Your task to perform on an android device: uninstall "Lyft - Rideshare, Bikes, Scooters & Transit" Image 0: 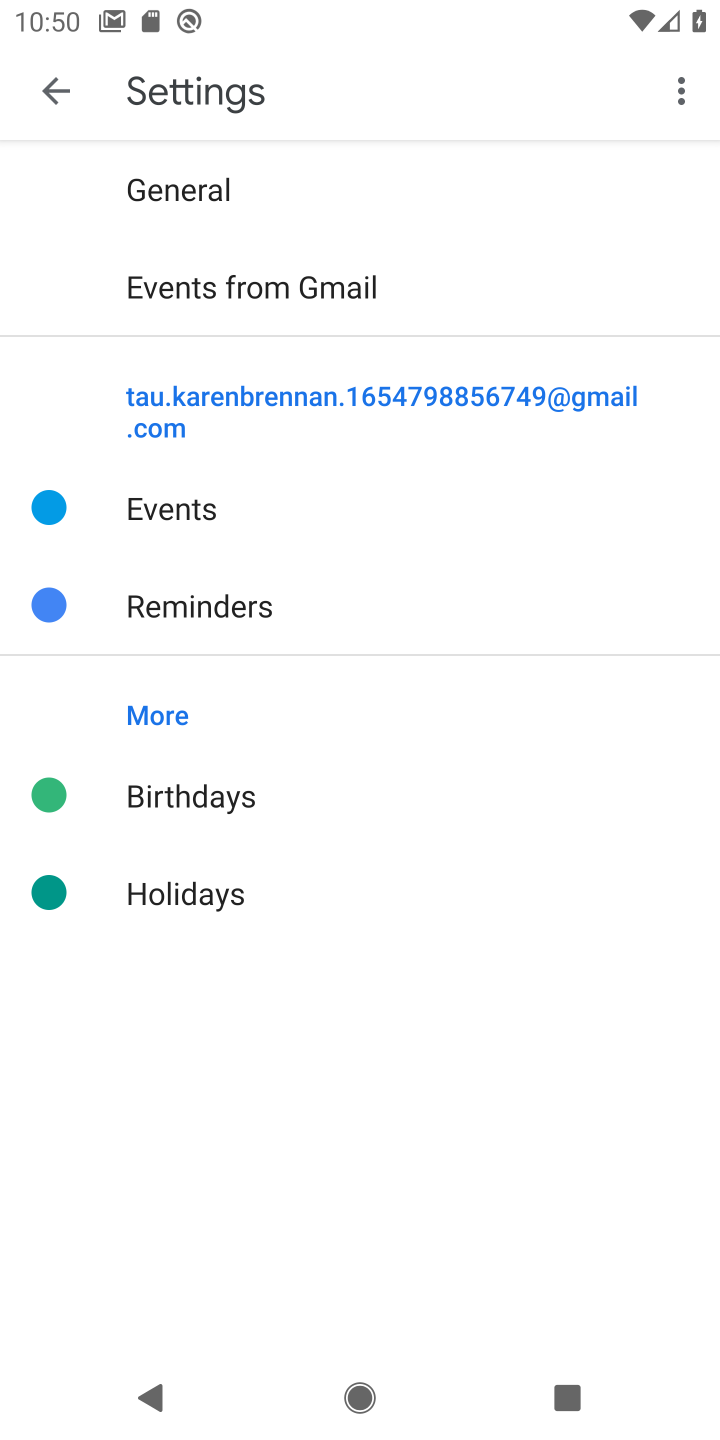
Step 0: press home button
Your task to perform on an android device: uninstall "Lyft - Rideshare, Bikes, Scooters & Transit" Image 1: 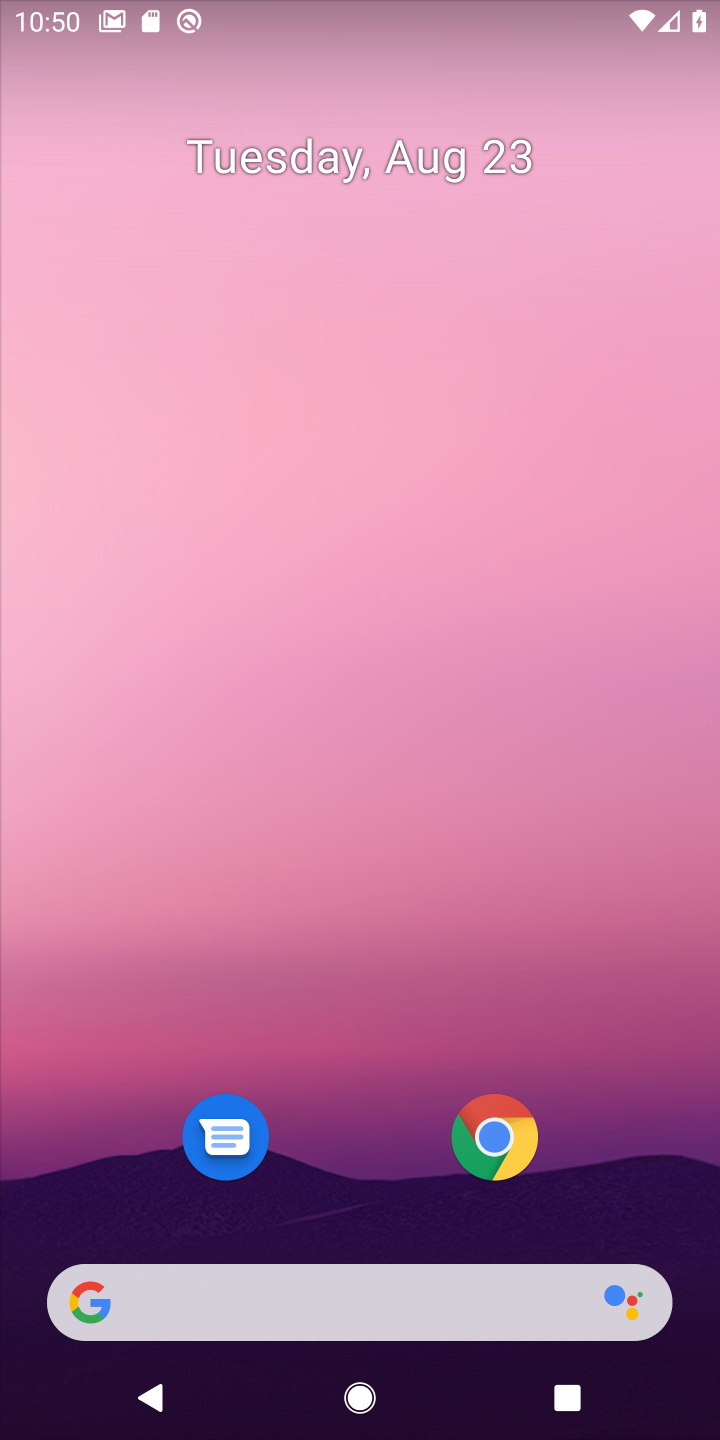
Step 1: drag from (321, 686) to (451, 9)
Your task to perform on an android device: uninstall "Lyft - Rideshare, Bikes, Scooters & Transit" Image 2: 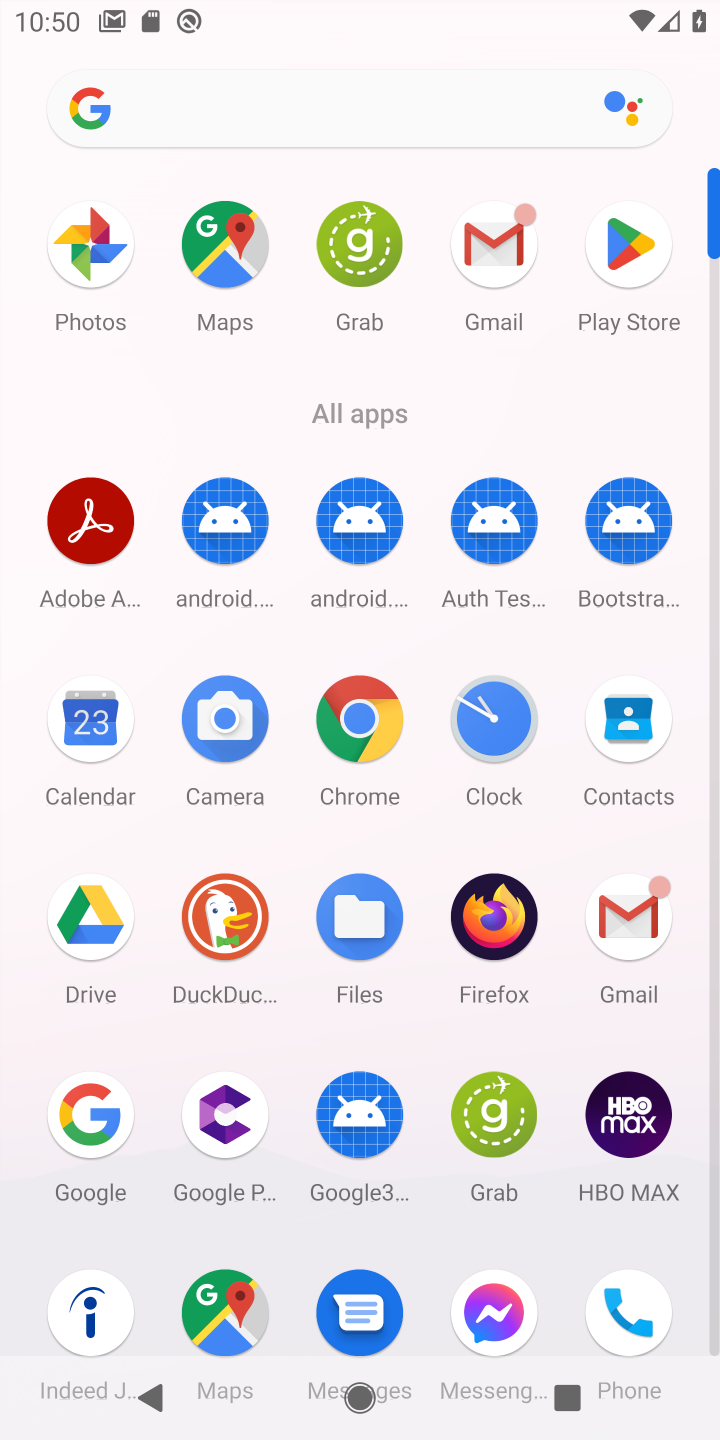
Step 2: click (627, 281)
Your task to perform on an android device: uninstall "Lyft - Rideshare, Bikes, Scooters & Transit" Image 3: 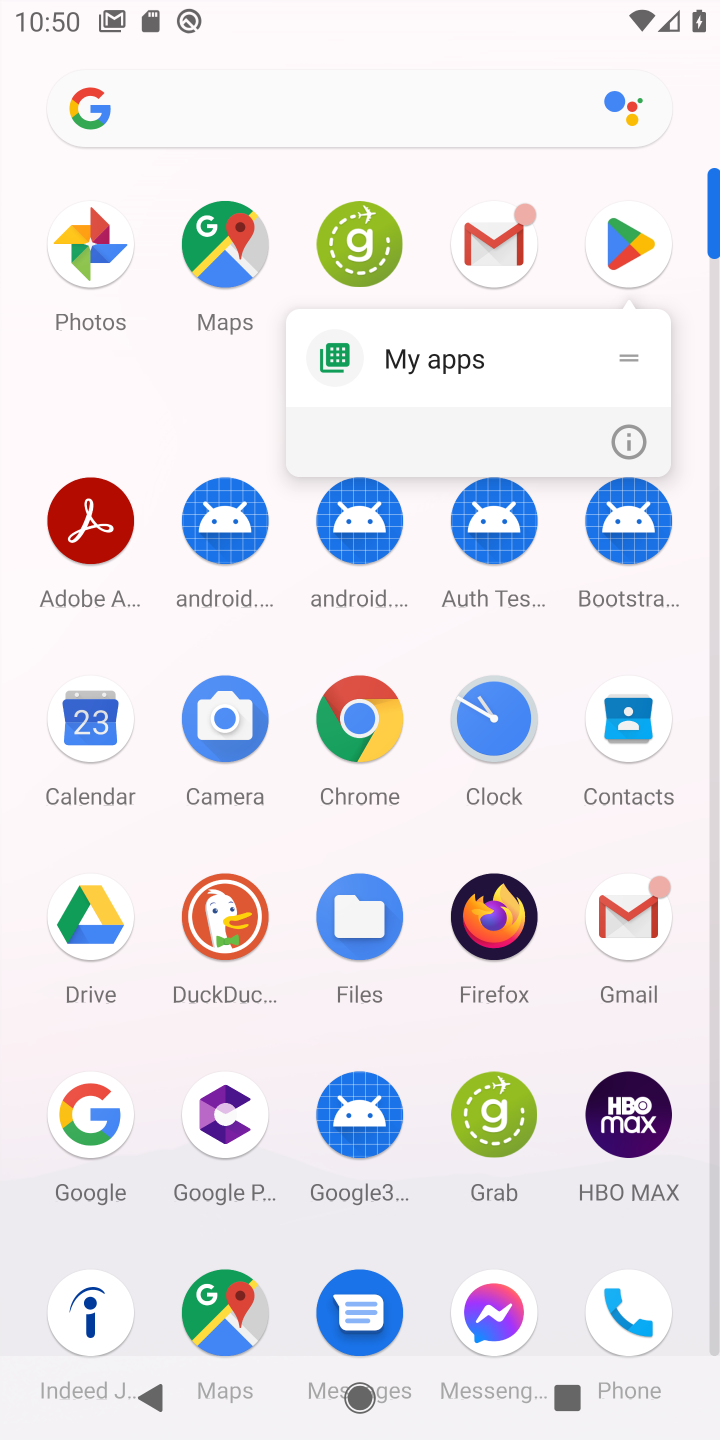
Step 3: click (650, 237)
Your task to perform on an android device: uninstall "Lyft - Rideshare, Bikes, Scooters & Transit" Image 4: 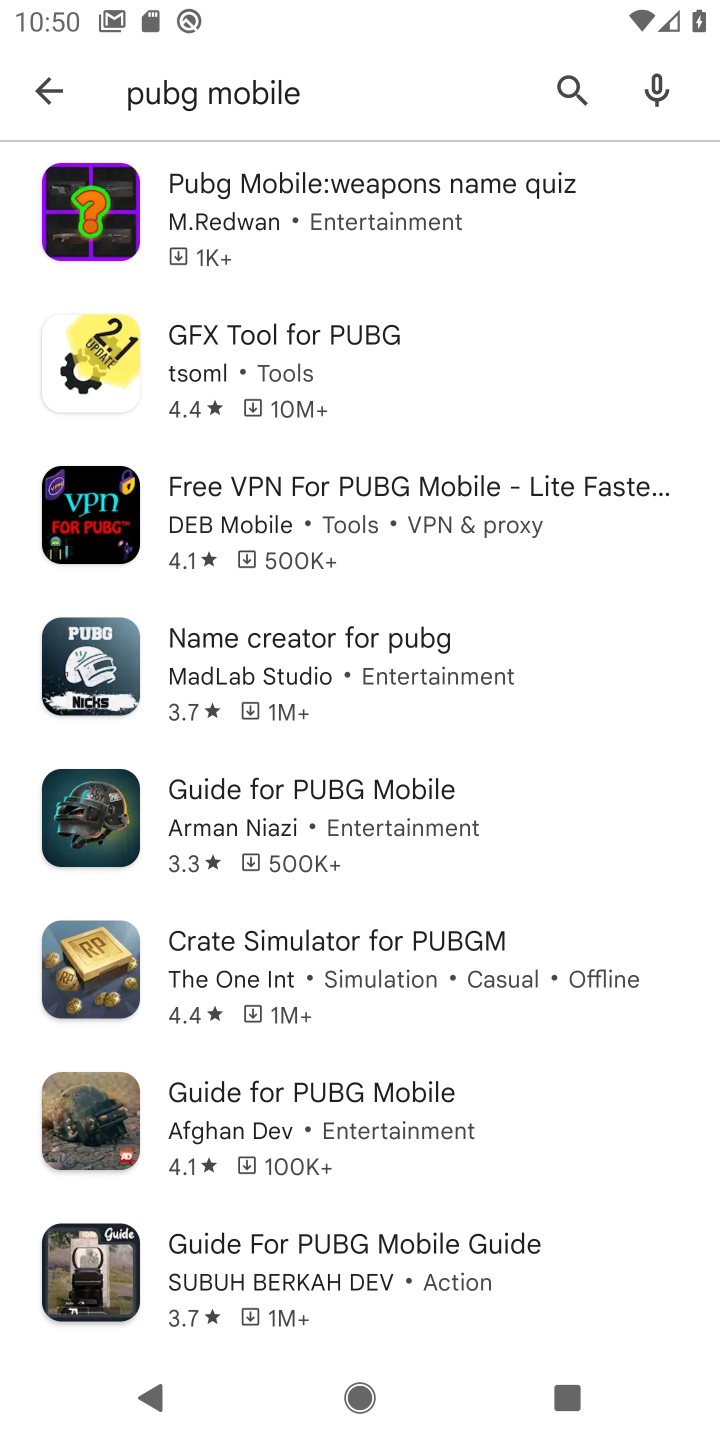
Step 4: click (335, 91)
Your task to perform on an android device: uninstall "Lyft - Rideshare, Bikes, Scooters & Transit" Image 5: 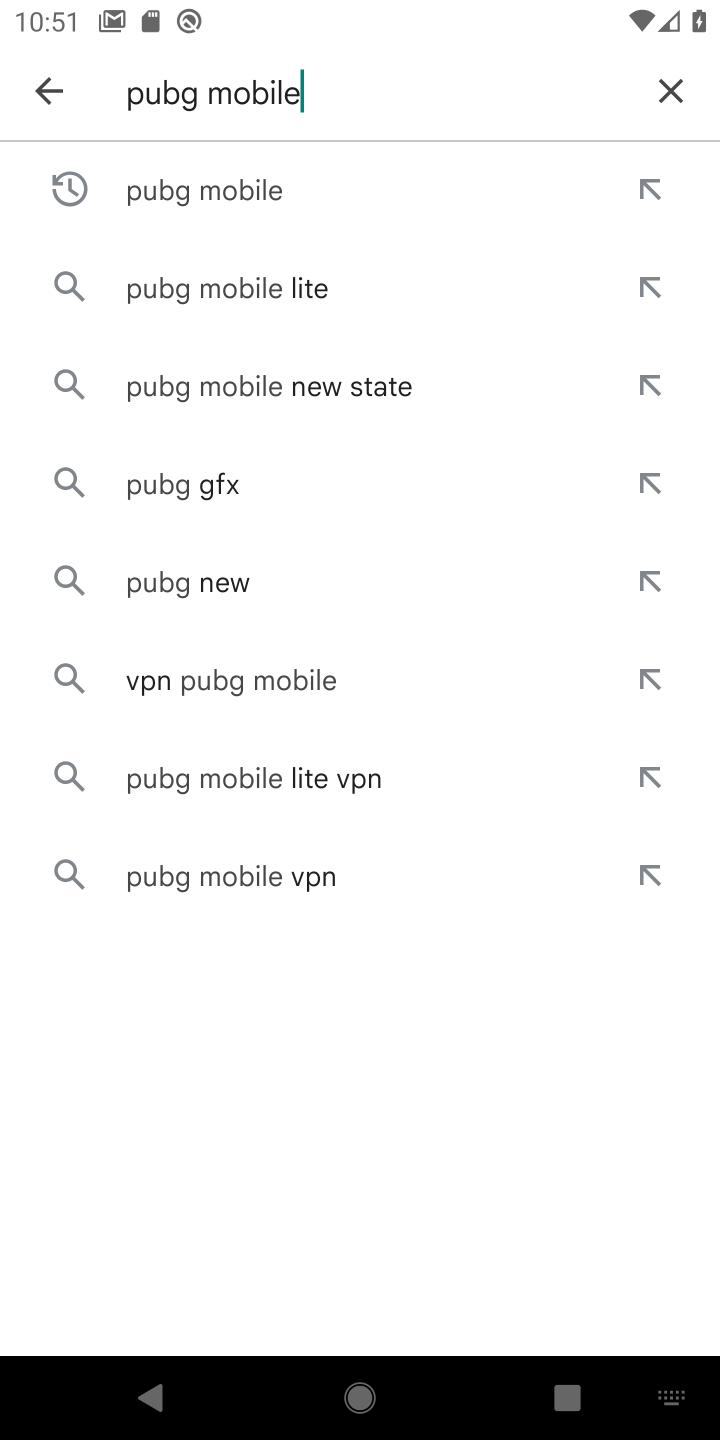
Step 5: click (679, 80)
Your task to perform on an android device: uninstall "Lyft - Rideshare, Bikes, Scooters & Transit" Image 6: 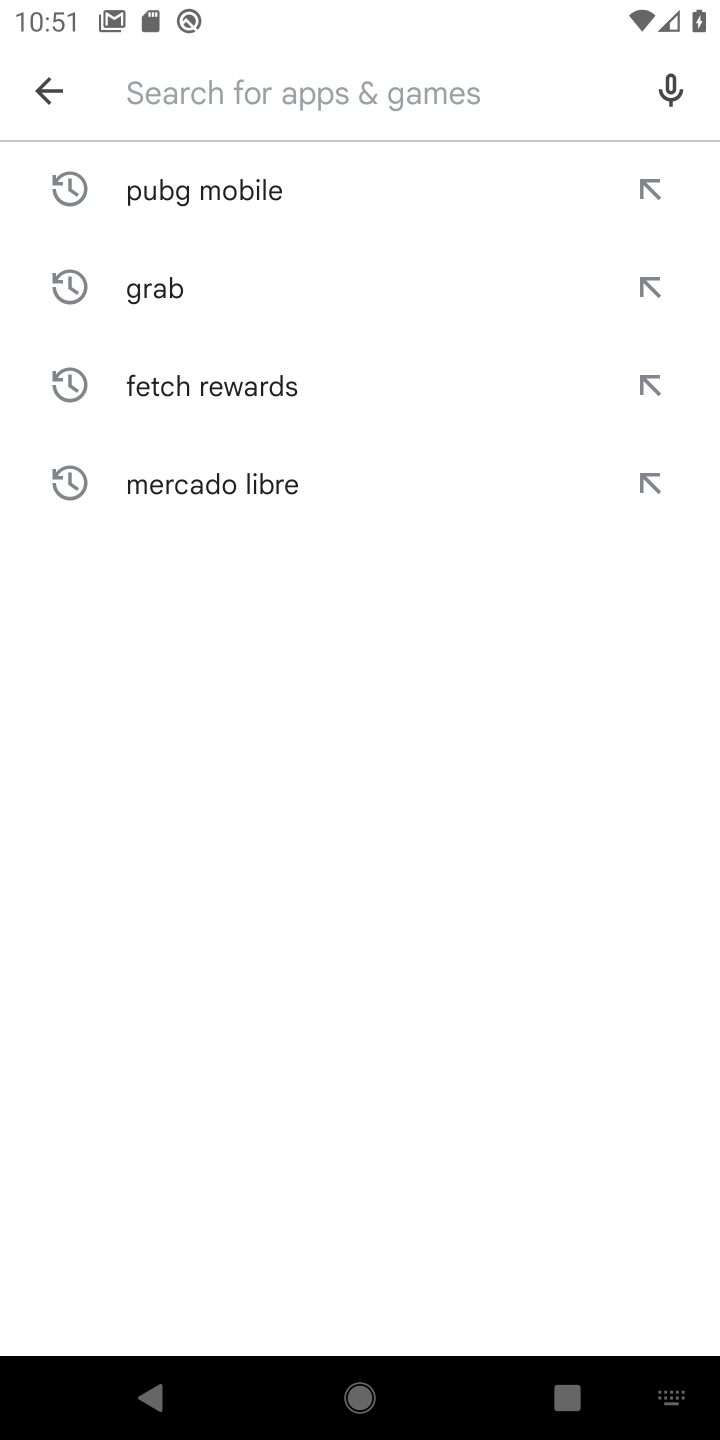
Step 6: type "lyft rideshare"
Your task to perform on an android device: uninstall "Lyft - Rideshare, Bikes, Scooters & Transit" Image 7: 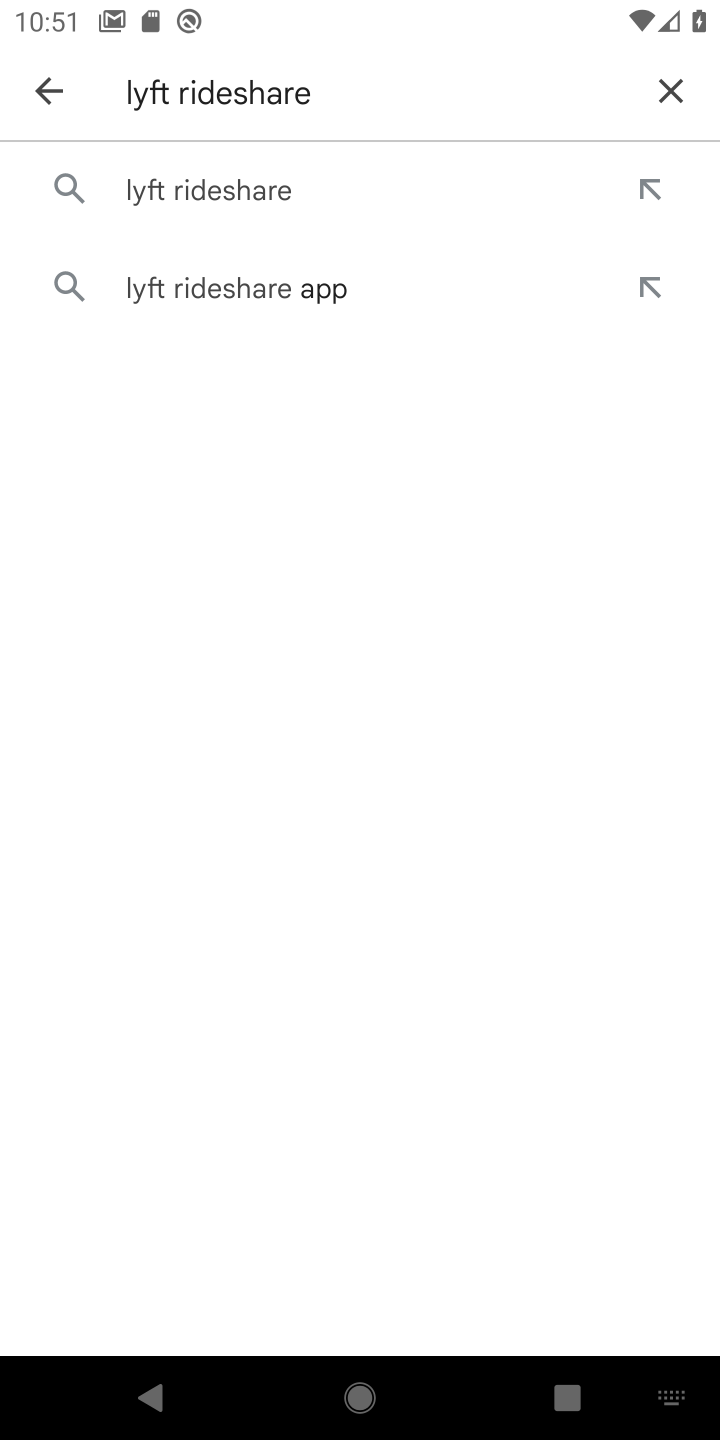
Step 7: click (259, 187)
Your task to perform on an android device: uninstall "Lyft - Rideshare, Bikes, Scooters & Transit" Image 8: 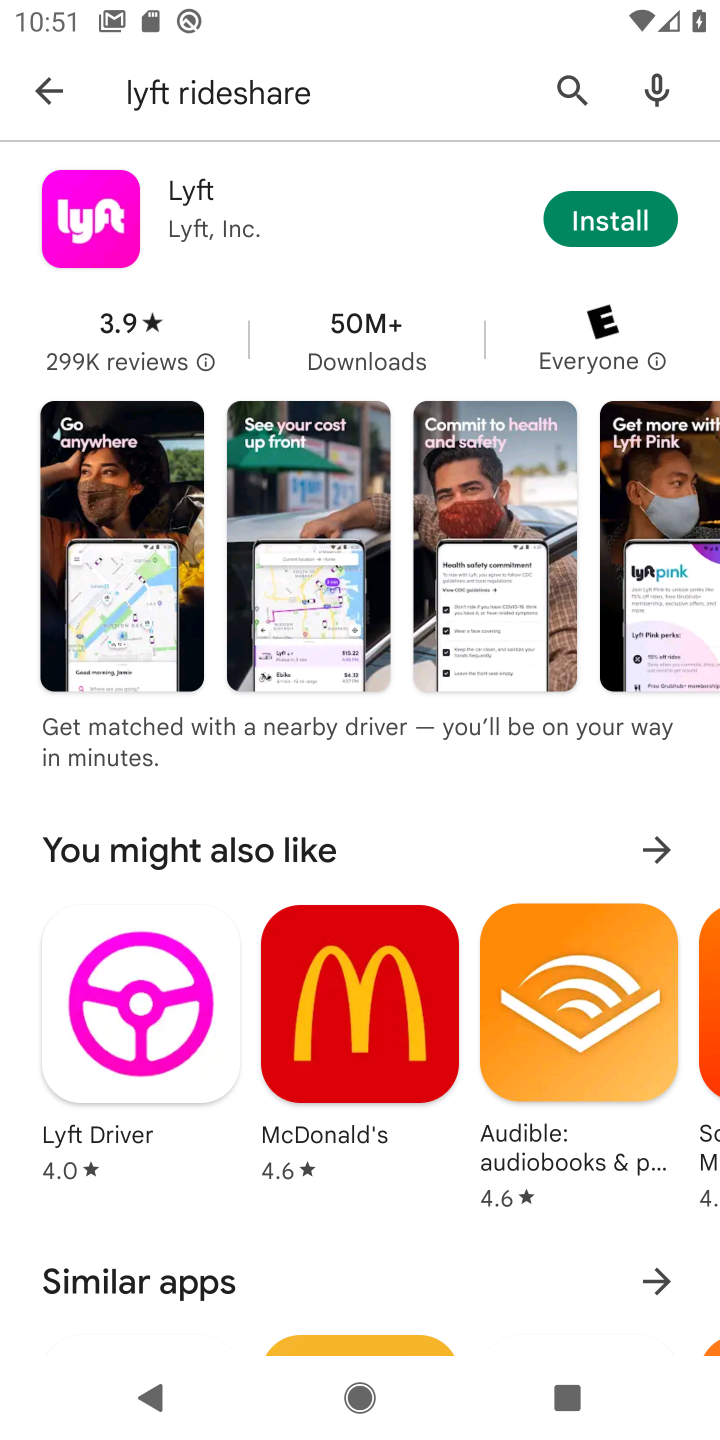
Step 8: click (631, 230)
Your task to perform on an android device: uninstall "Lyft - Rideshare, Bikes, Scooters & Transit" Image 9: 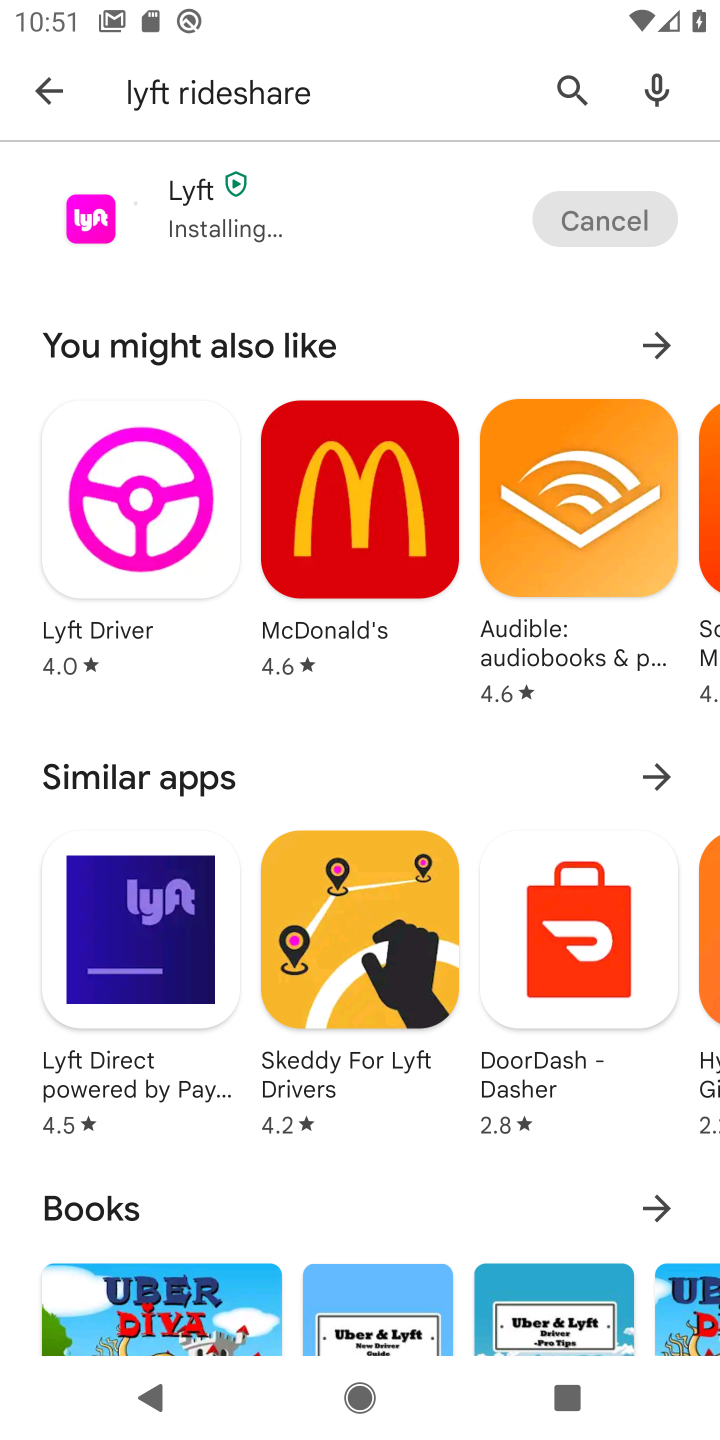
Step 9: click (630, 234)
Your task to perform on an android device: uninstall "Lyft - Rideshare, Bikes, Scooters & Transit" Image 10: 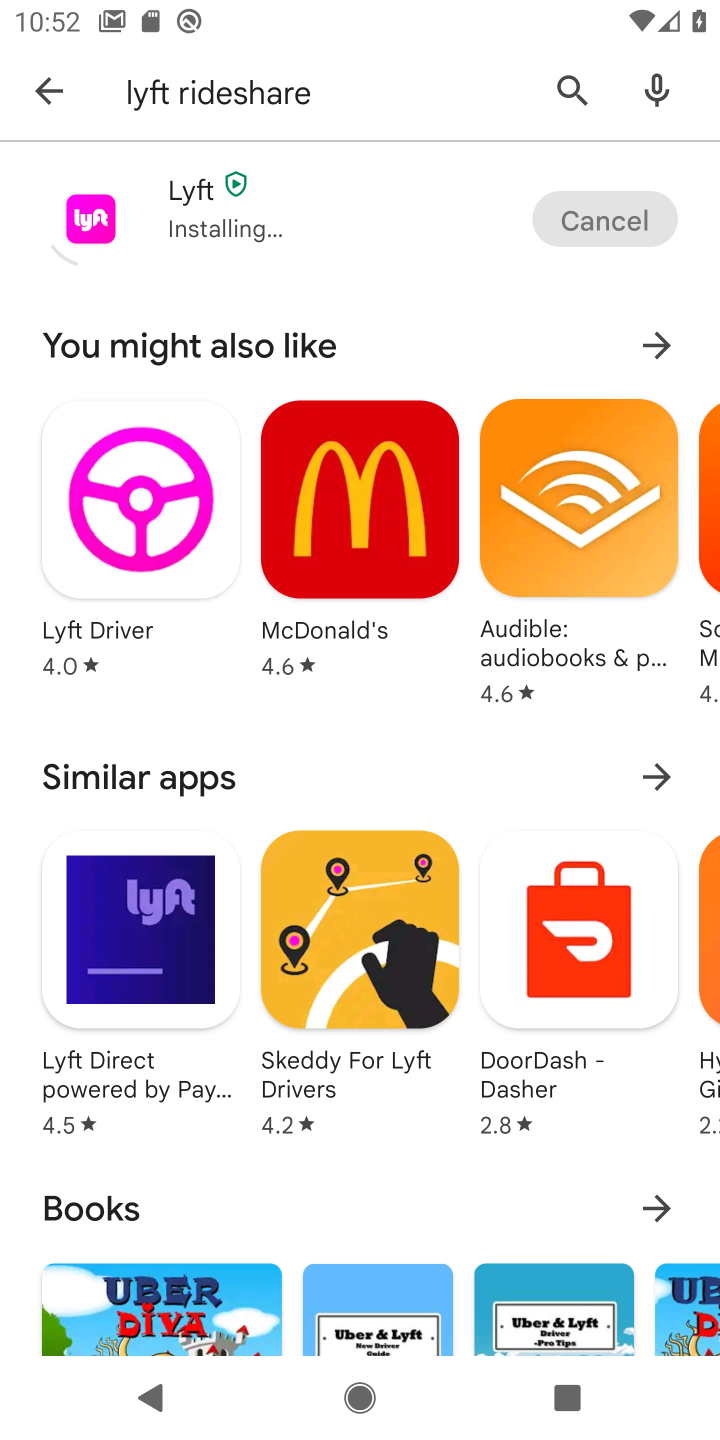
Step 10: task complete